Your task to perform on an android device: open a new tab in the chrome app Image 0: 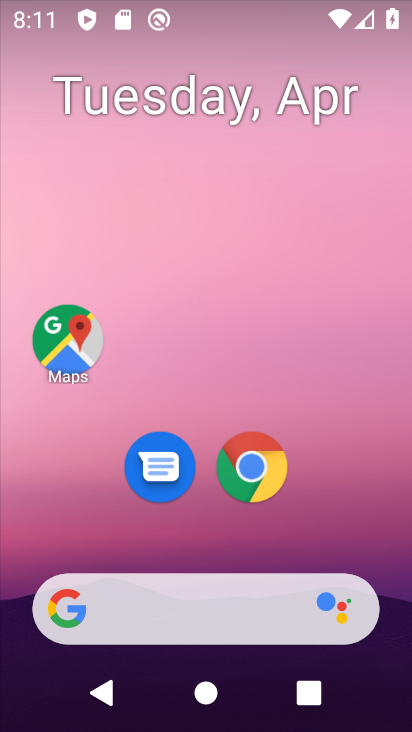
Step 0: click (258, 478)
Your task to perform on an android device: open a new tab in the chrome app Image 1: 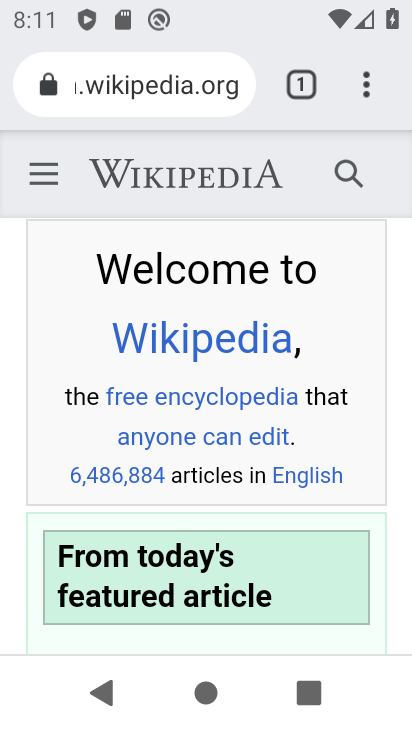
Step 1: click (364, 89)
Your task to perform on an android device: open a new tab in the chrome app Image 2: 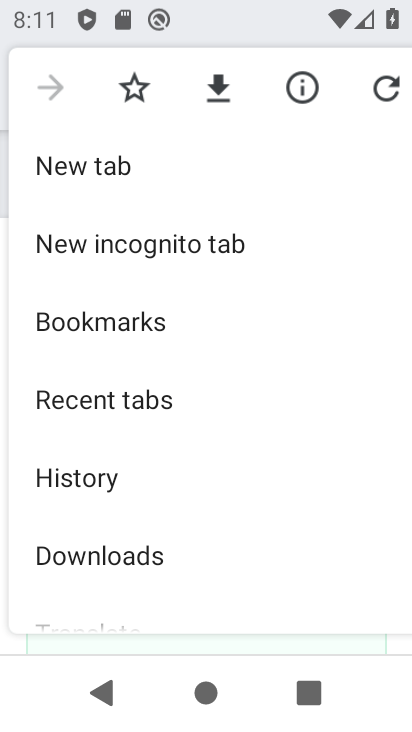
Step 2: click (109, 165)
Your task to perform on an android device: open a new tab in the chrome app Image 3: 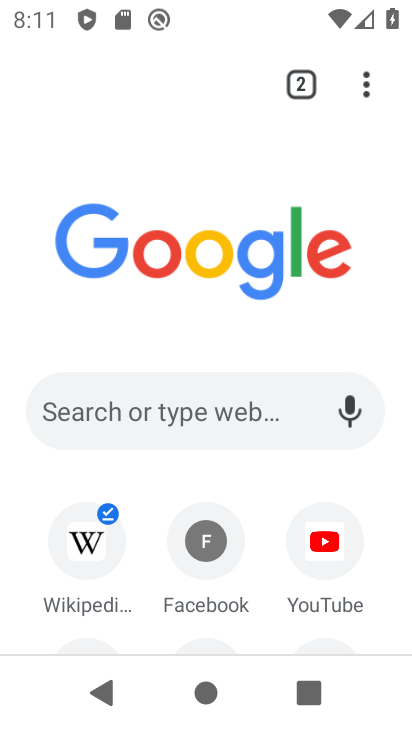
Step 3: task complete